Your task to perform on an android device: Search for Mexican restaurants on Maps Image 0: 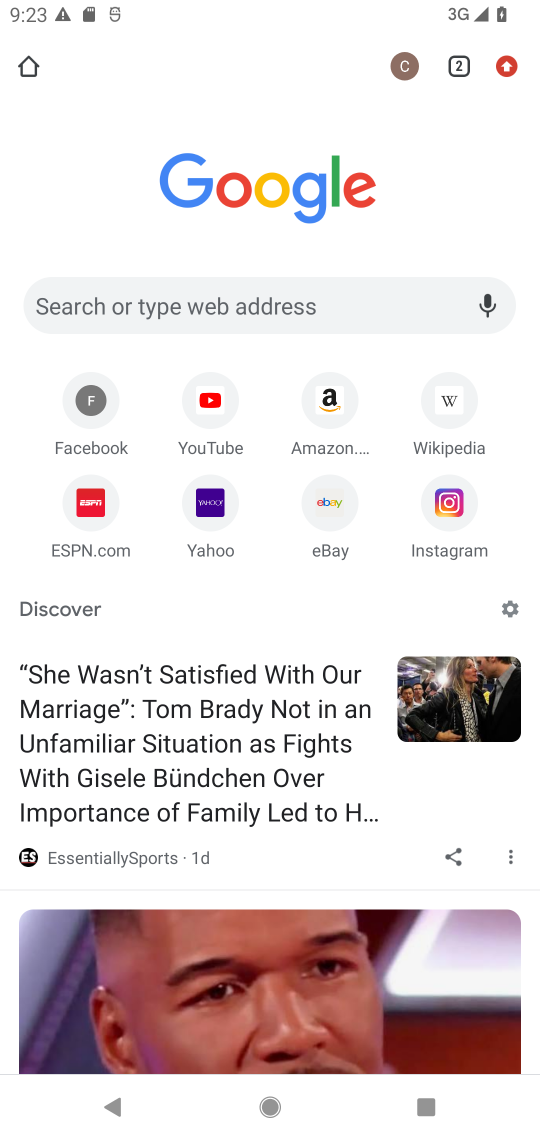
Step 0: click (90, 309)
Your task to perform on an android device: Search for Mexican restaurants on Maps Image 1: 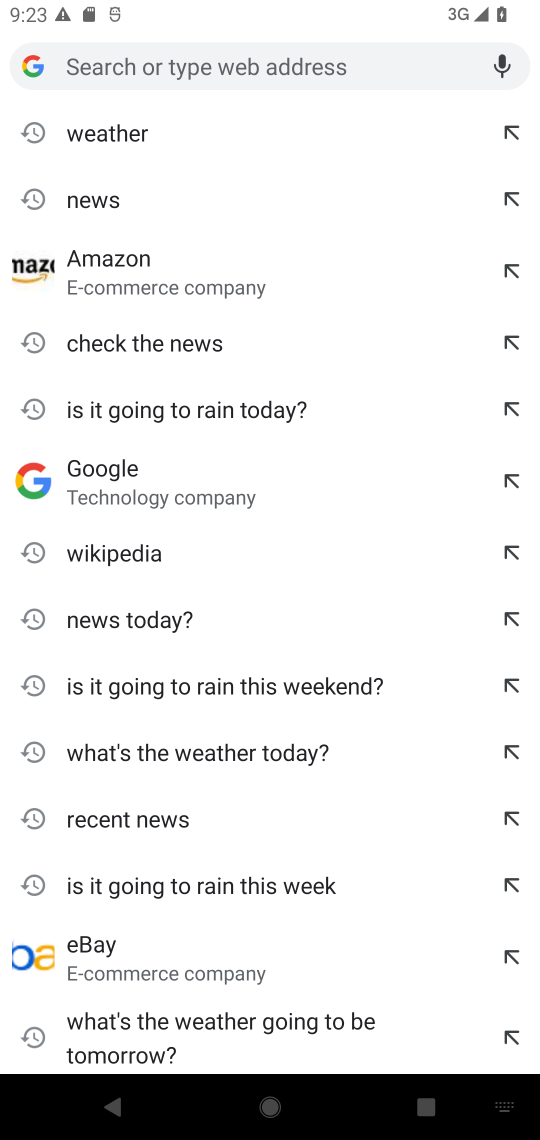
Step 1: press home button
Your task to perform on an android device: Search for Mexican restaurants on Maps Image 2: 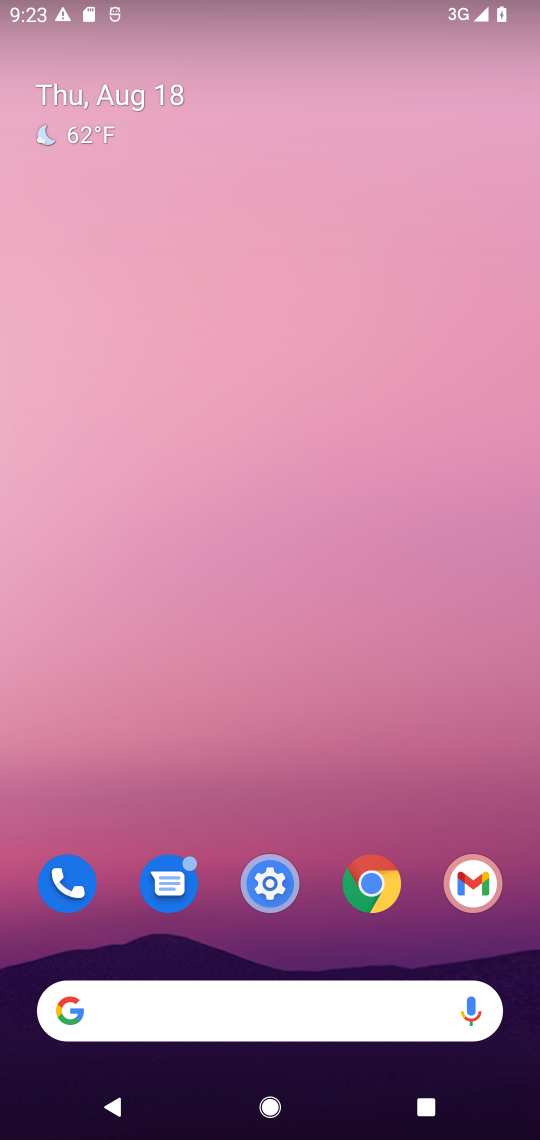
Step 2: drag from (52, 1109) to (115, 655)
Your task to perform on an android device: Search for Mexican restaurants on Maps Image 3: 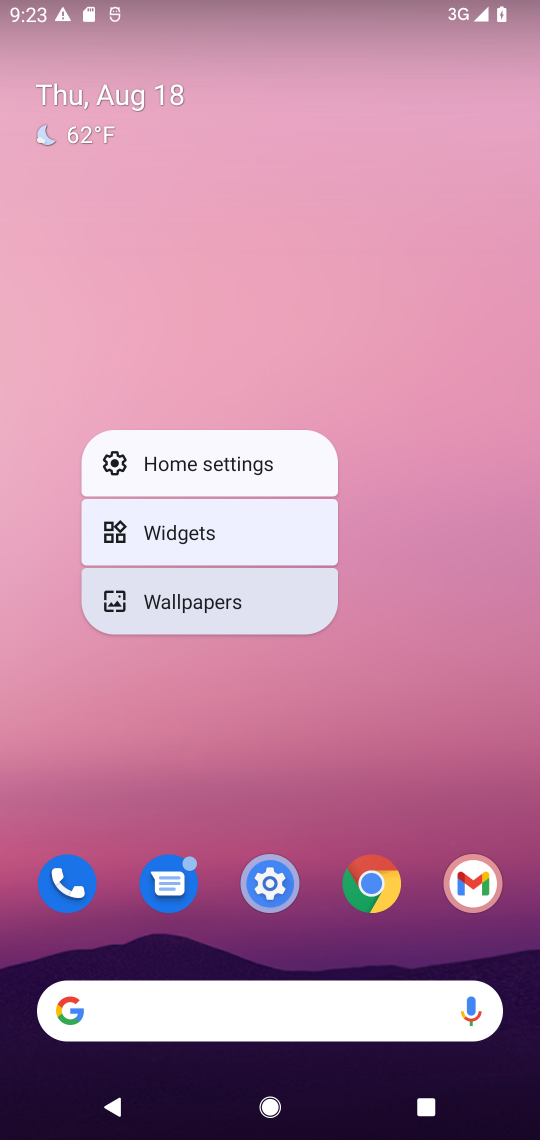
Step 3: drag from (26, 1066) to (527, 279)
Your task to perform on an android device: Search for Mexican restaurants on Maps Image 4: 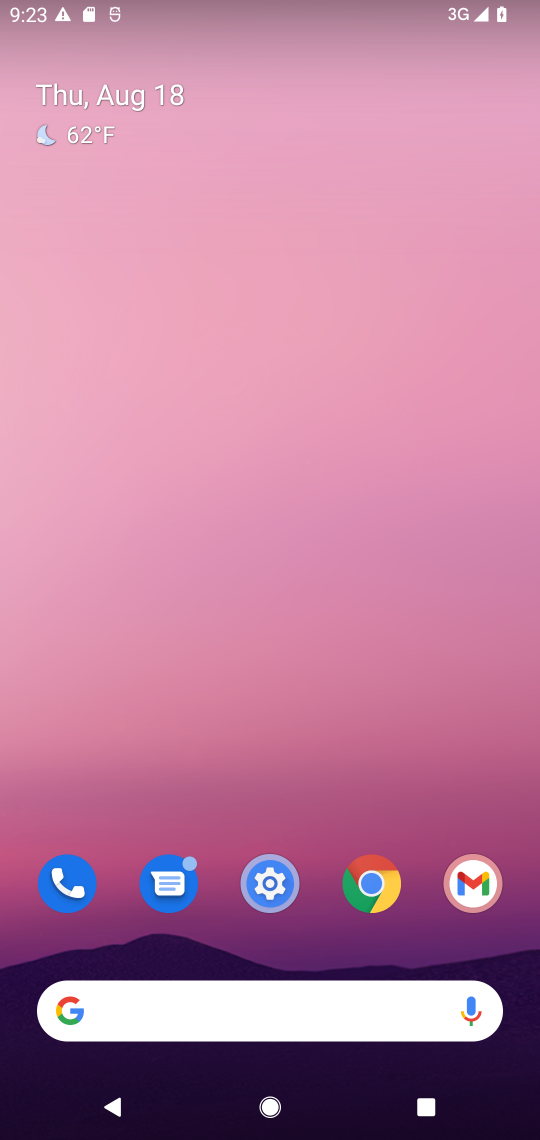
Step 4: drag from (50, 1108) to (148, 400)
Your task to perform on an android device: Search for Mexican restaurants on Maps Image 5: 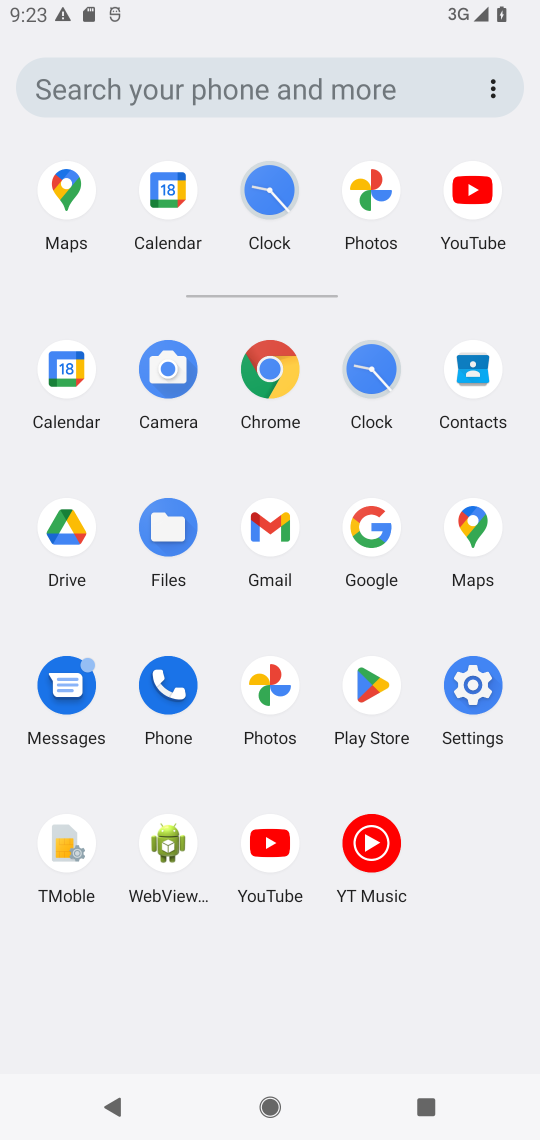
Step 5: click (482, 551)
Your task to perform on an android device: Search for Mexican restaurants on Maps Image 6: 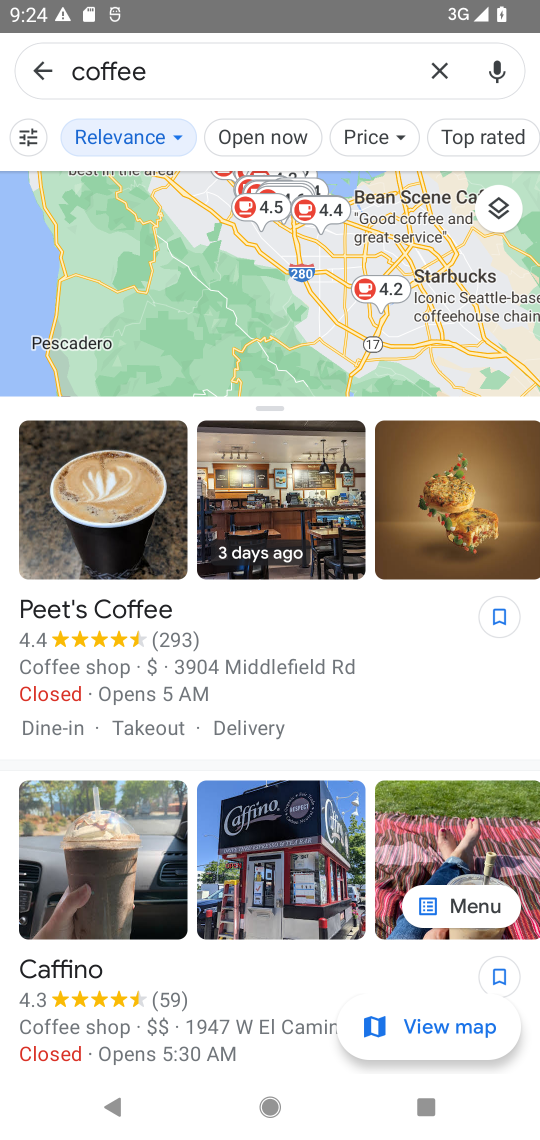
Step 6: press back button
Your task to perform on an android device: Search for Mexican restaurants on Maps Image 7: 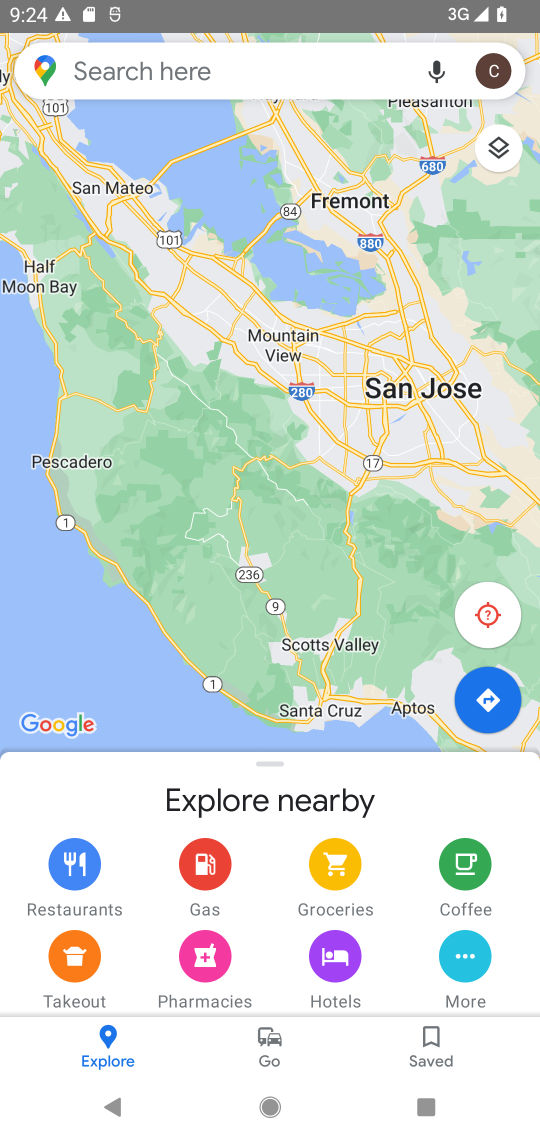
Step 7: click (149, 58)
Your task to perform on an android device: Search for Mexican restaurants on Maps Image 8: 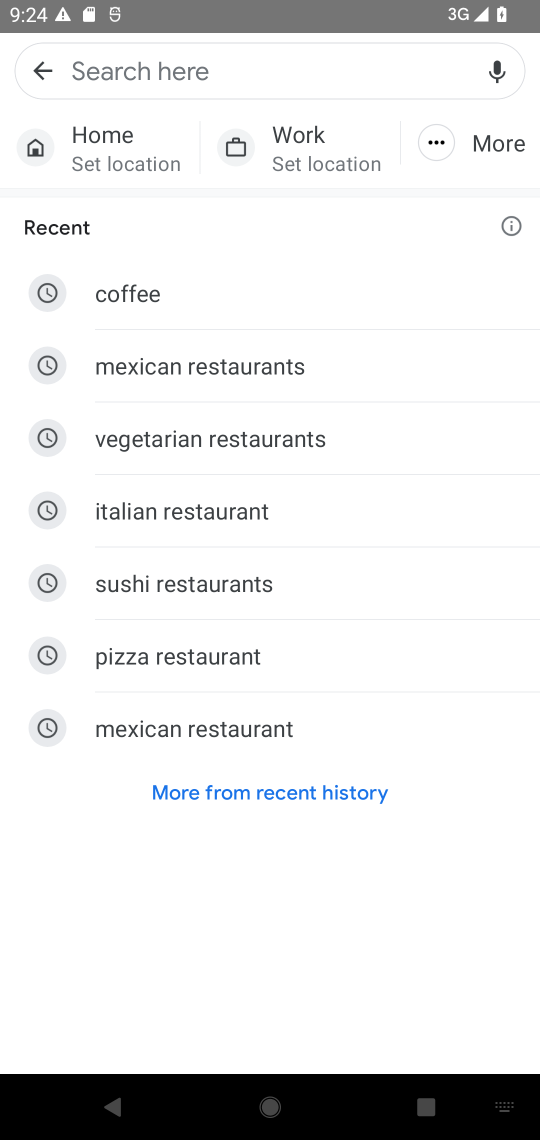
Step 8: type "Mexican restaurants"
Your task to perform on an android device: Search for Mexican restaurants on Maps Image 9: 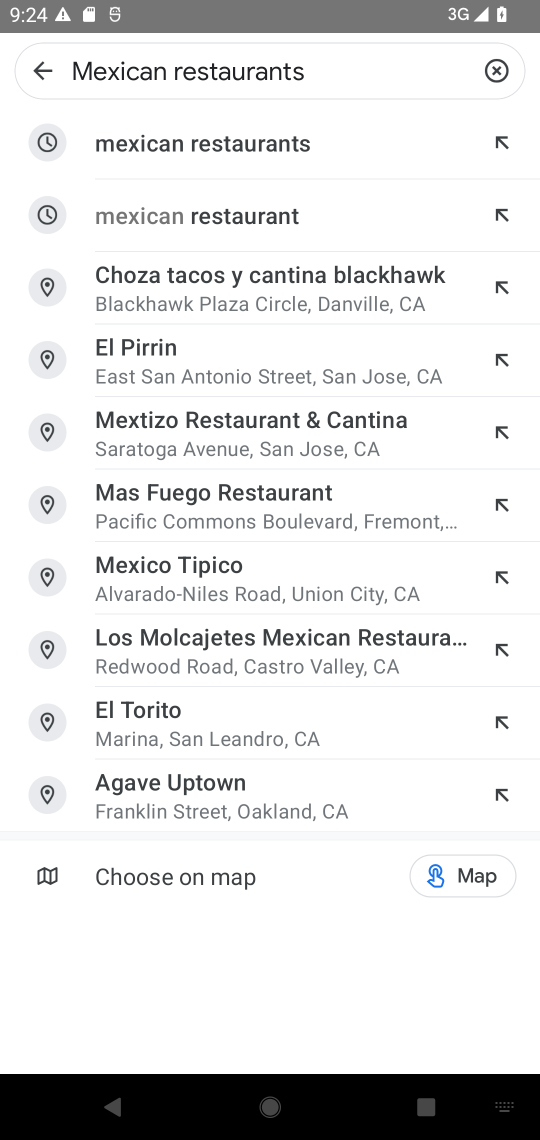
Step 9: click (264, 156)
Your task to perform on an android device: Search for Mexican restaurants on Maps Image 10: 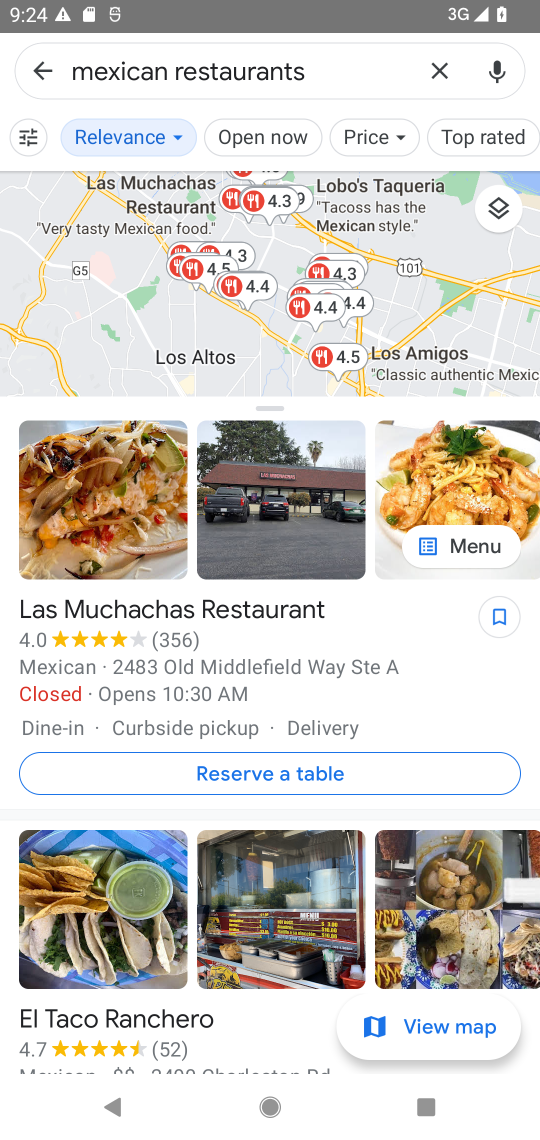
Step 10: task complete